Your task to perform on an android device: What's the weather? Image 0: 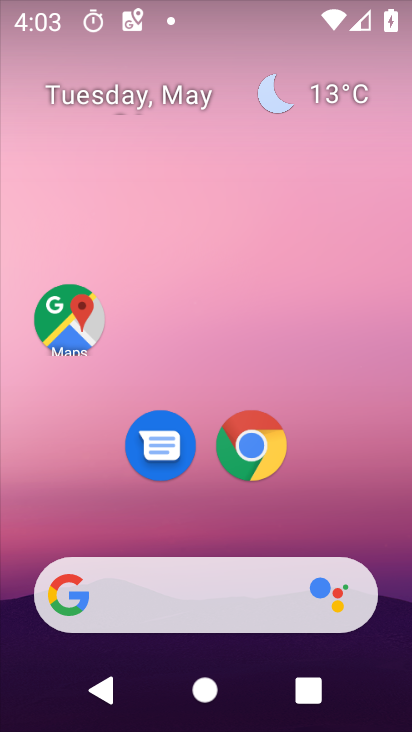
Step 0: press home button
Your task to perform on an android device: What's the weather? Image 1: 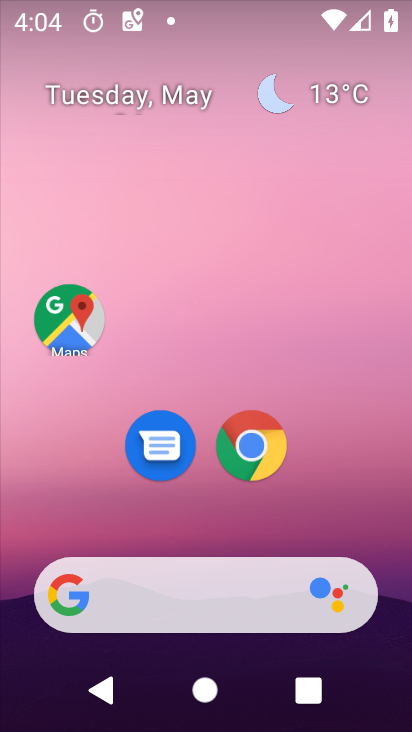
Step 1: click (344, 91)
Your task to perform on an android device: What's the weather? Image 2: 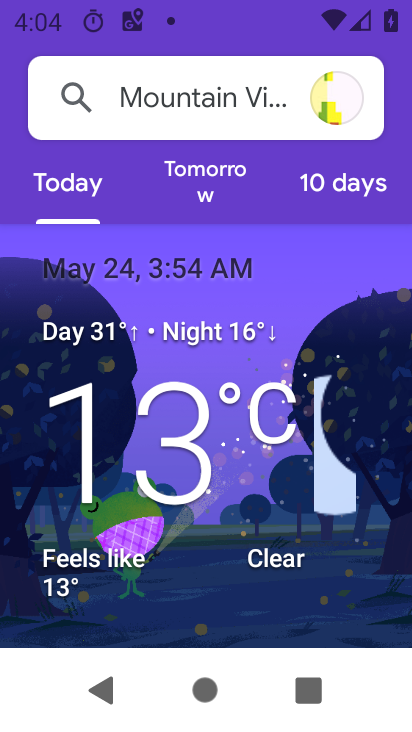
Step 2: drag from (211, 574) to (221, 348)
Your task to perform on an android device: What's the weather? Image 3: 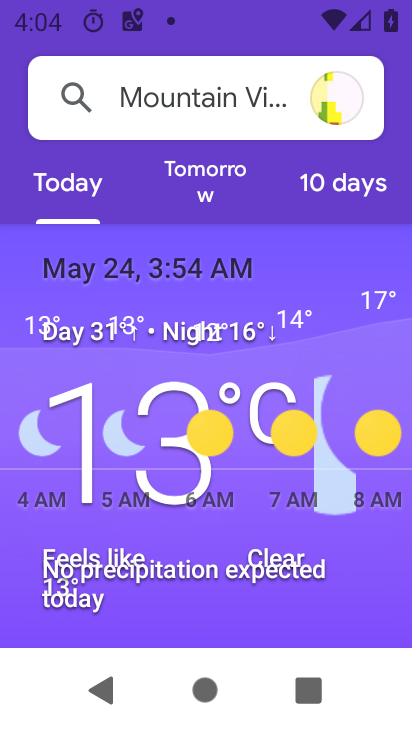
Step 3: drag from (341, 442) to (22, 448)
Your task to perform on an android device: What's the weather? Image 4: 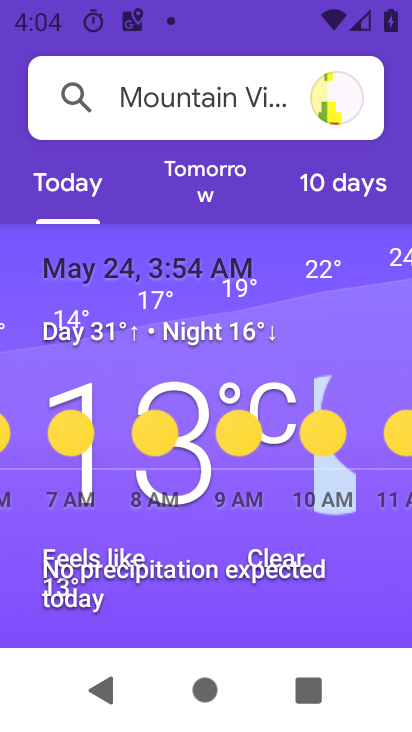
Step 4: click (5, 448)
Your task to perform on an android device: What's the weather? Image 5: 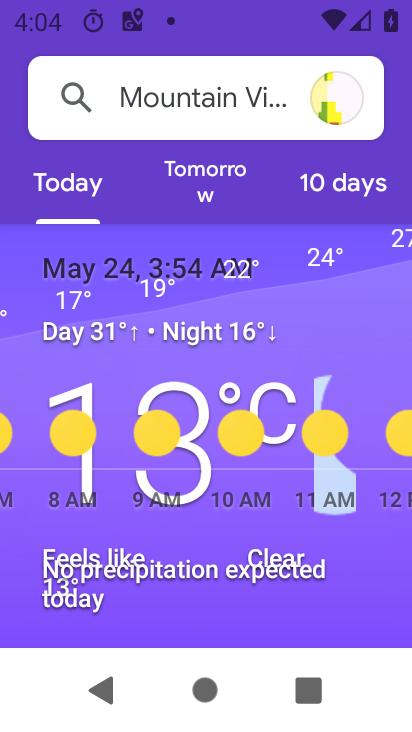
Step 5: task complete